Your task to perform on an android device: turn off javascript in the chrome app Image 0: 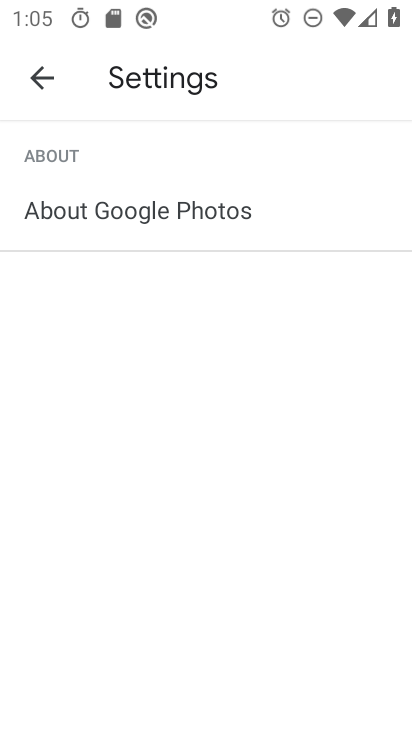
Step 0: press back button
Your task to perform on an android device: turn off javascript in the chrome app Image 1: 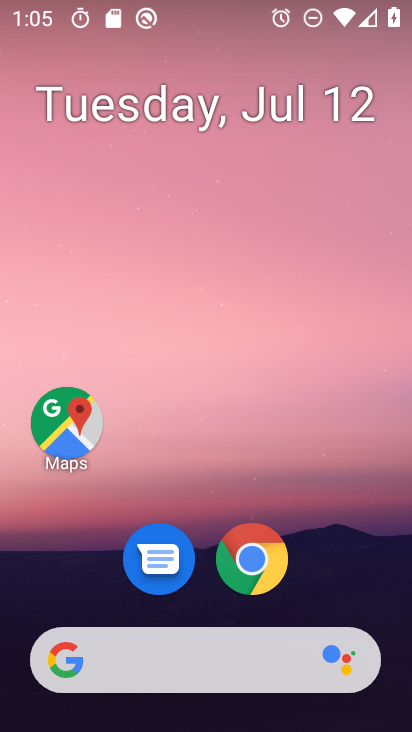
Step 1: click (261, 555)
Your task to perform on an android device: turn off javascript in the chrome app Image 2: 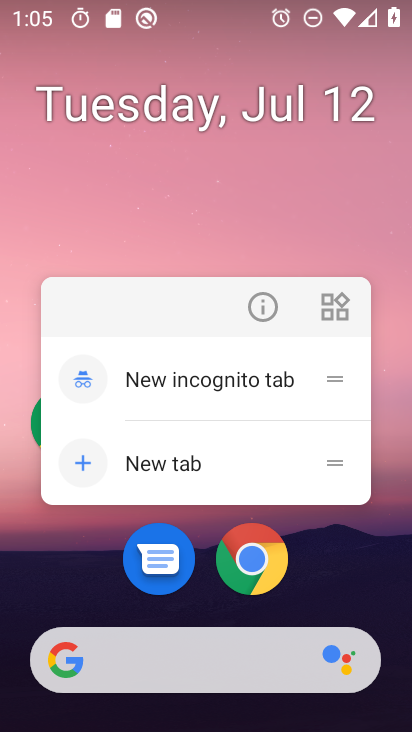
Step 2: click (244, 566)
Your task to perform on an android device: turn off javascript in the chrome app Image 3: 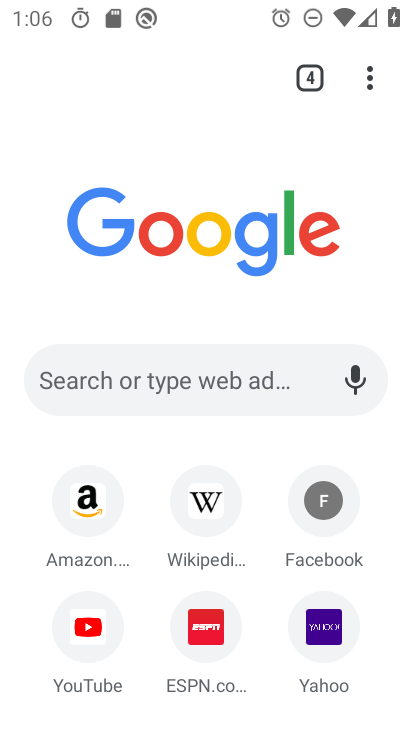
Step 3: drag from (368, 71) to (96, 610)
Your task to perform on an android device: turn off javascript in the chrome app Image 4: 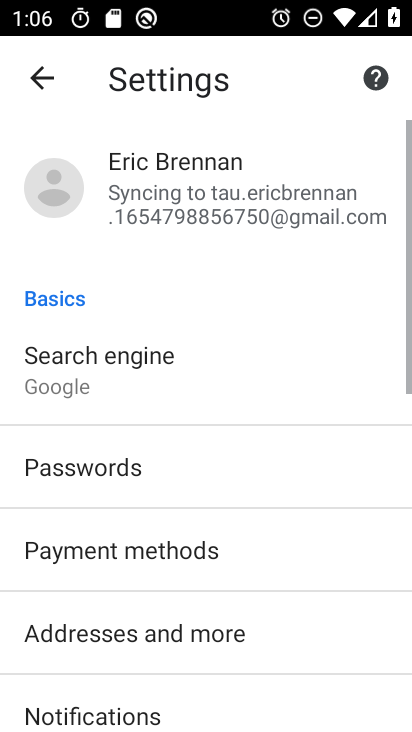
Step 4: drag from (192, 677) to (265, 133)
Your task to perform on an android device: turn off javascript in the chrome app Image 5: 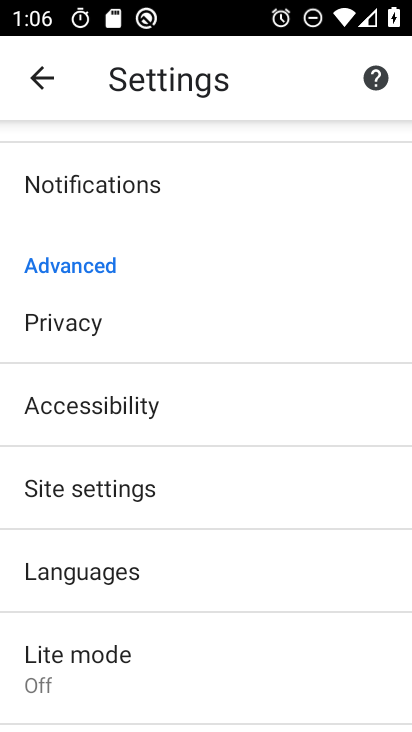
Step 5: click (78, 500)
Your task to perform on an android device: turn off javascript in the chrome app Image 6: 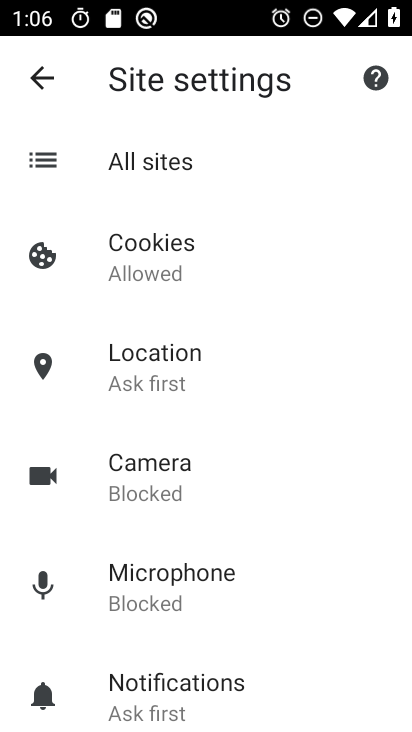
Step 6: drag from (153, 666) to (281, 112)
Your task to perform on an android device: turn off javascript in the chrome app Image 7: 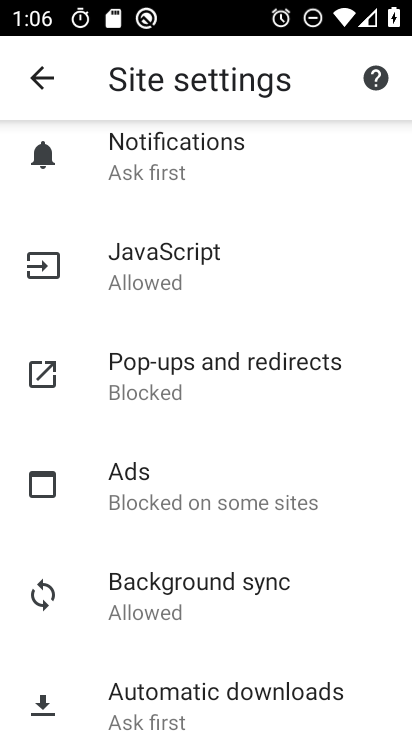
Step 7: click (162, 268)
Your task to perform on an android device: turn off javascript in the chrome app Image 8: 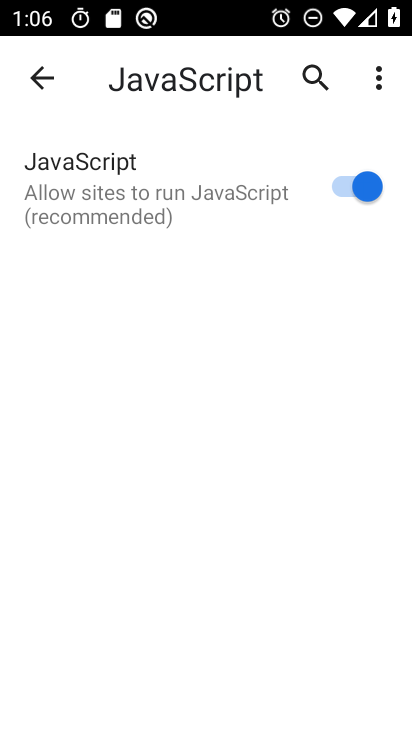
Step 8: click (370, 187)
Your task to perform on an android device: turn off javascript in the chrome app Image 9: 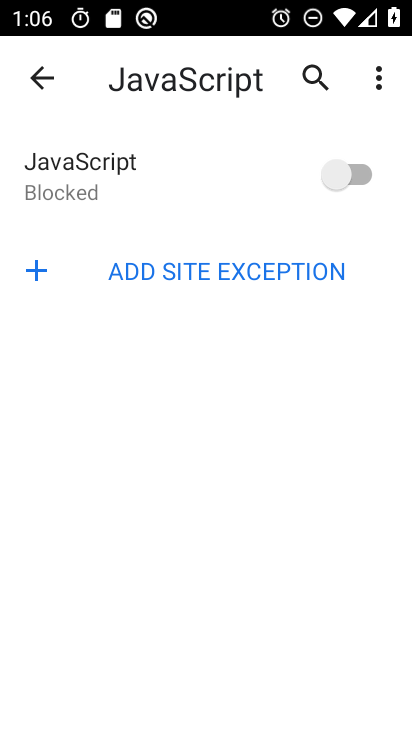
Step 9: task complete